Your task to perform on an android device: Open Youtube and go to the subscriptions tab Image 0: 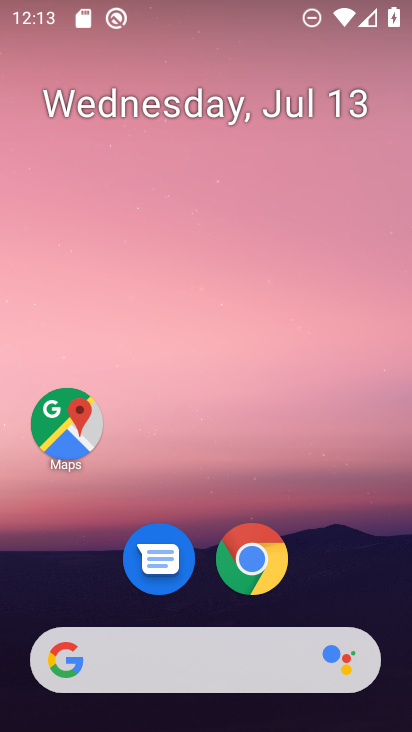
Step 0: drag from (267, 640) to (317, 98)
Your task to perform on an android device: Open Youtube and go to the subscriptions tab Image 1: 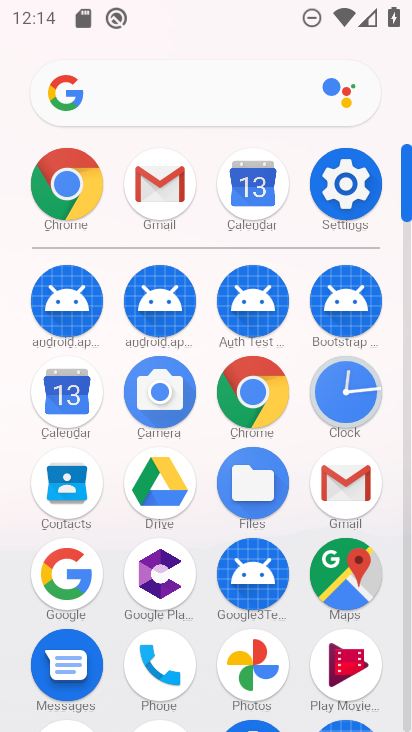
Step 1: drag from (247, 529) to (278, 244)
Your task to perform on an android device: Open Youtube and go to the subscriptions tab Image 2: 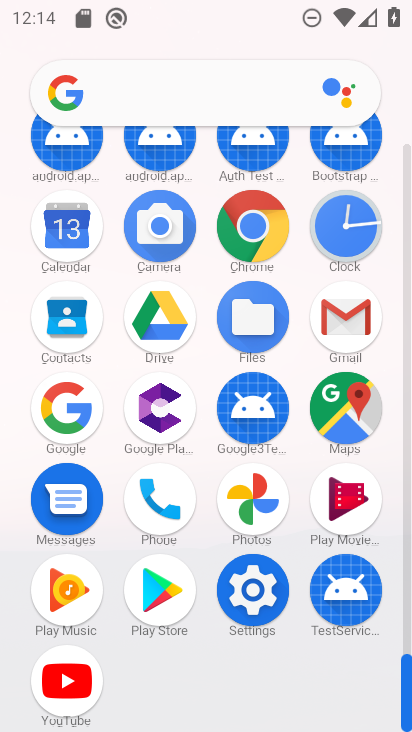
Step 2: click (69, 675)
Your task to perform on an android device: Open Youtube and go to the subscriptions tab Image 3: 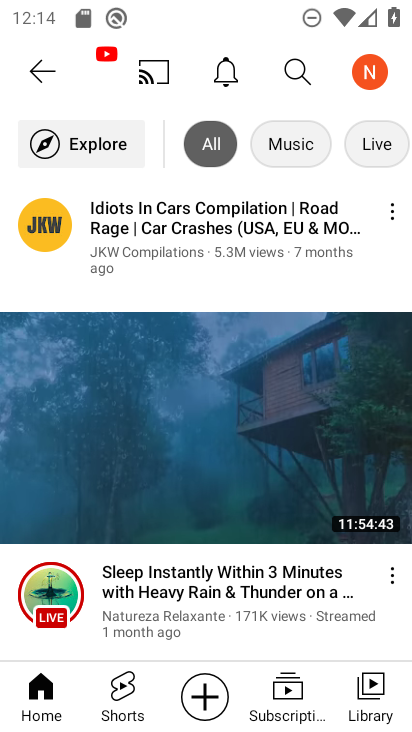
Step 3: click (289, 701)
Your task to perform on an android device: Open Youtube and go to the subscriptions tab Image 4: 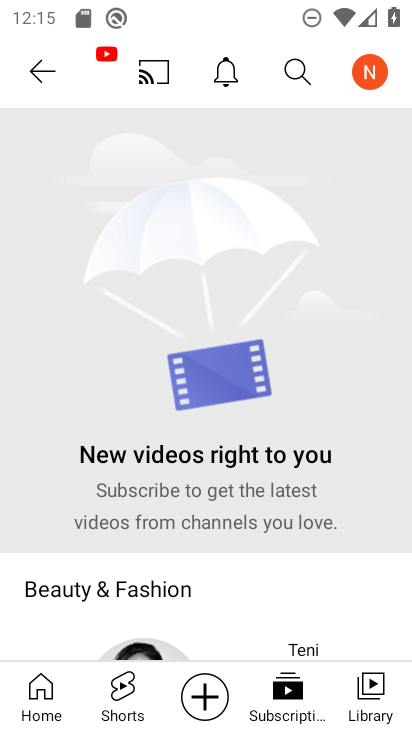
Step 4: task complete